Your task to perform on an android device: Go to Reddit.com Image 0: 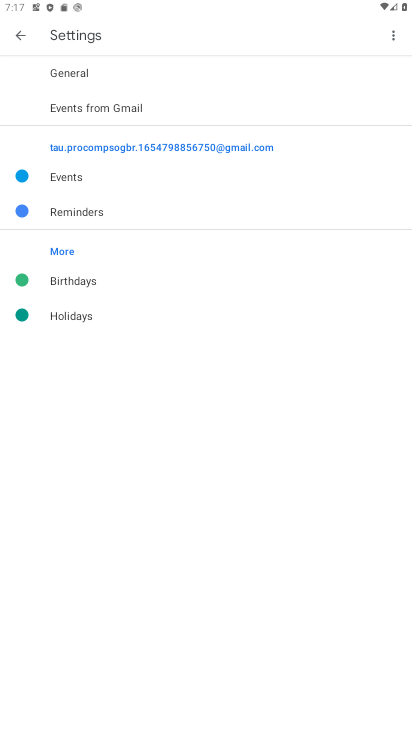
Step 0: press home button
Your task to perform on an android device: Go to Reddit.com Image 1: 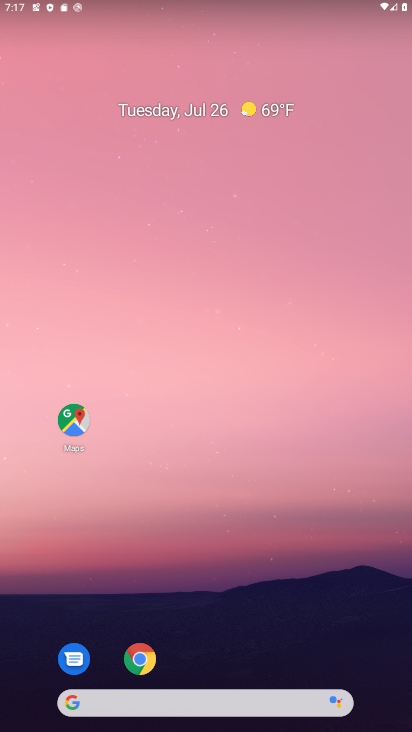
Step 1: click (151, 655)
Your task to perform on an android device: Go to Reddit.com Image 2: 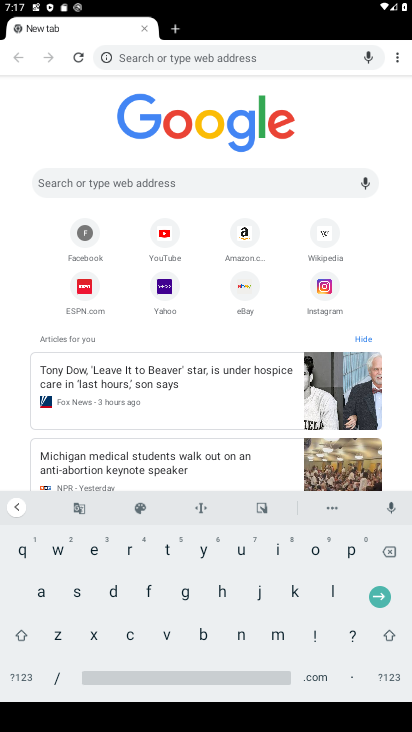
Step 2: click (144, 65)
Your task to perform on an android device: Go to Reddit.com Image 3: 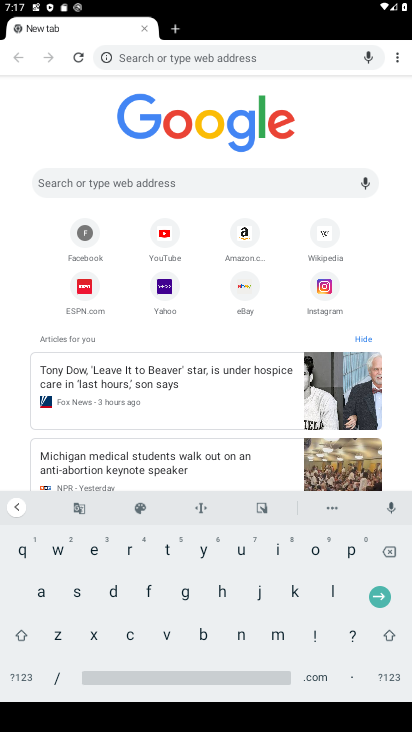
Step 3: click (129, 552)
Your task to perform on an android device: Go to Reddit.com Image 4: 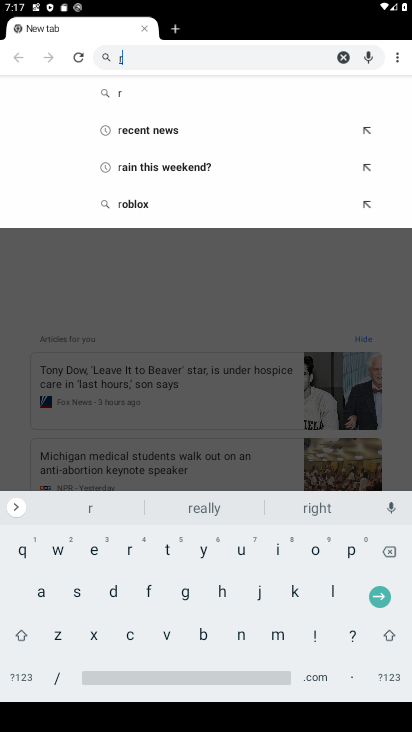
Step 4: click (93, 545)
Your task to perform on an android device: Go to Reddit.com Image 5: 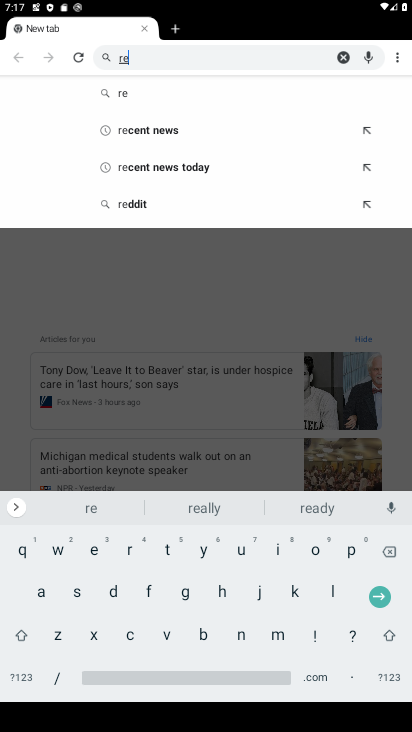
Step 5: click (140, 204)
Your task to perform on an android device: Go to Reddit.com Image 6: 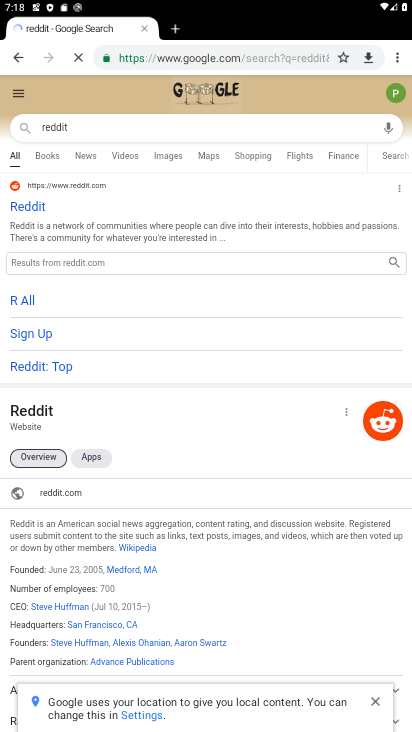
Step 6: click (34, 209)
Your task to perform on an android device: Go to Reddit.com Image 7: 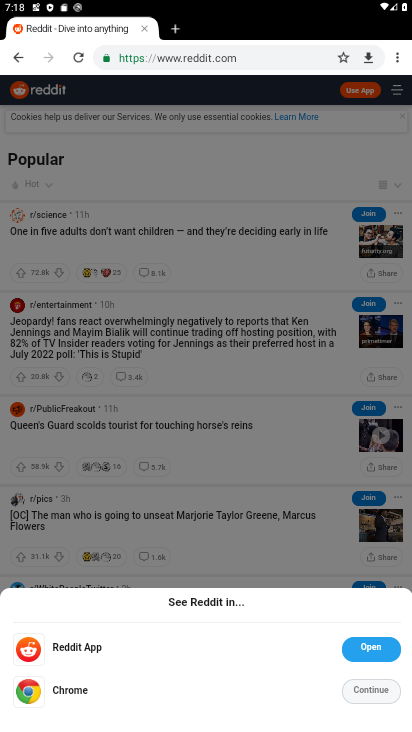
Step 7: click (377, 683)
Your task to perform on an android device: Go to Reddit.com Image 8: 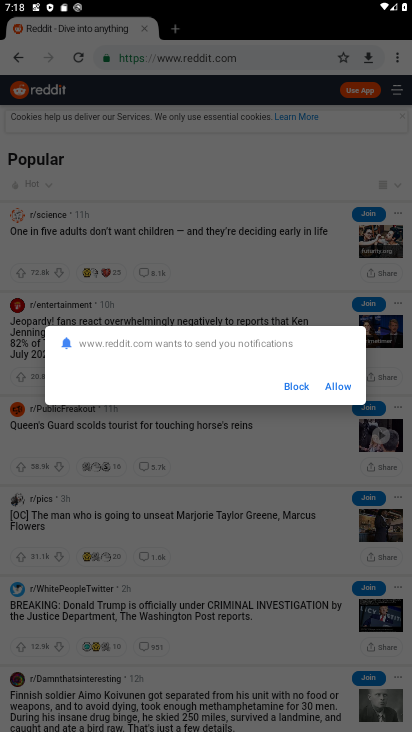
Step 8: click (289, 379)
Your task to perform on an android device: Go to Reddit.com Image 9: 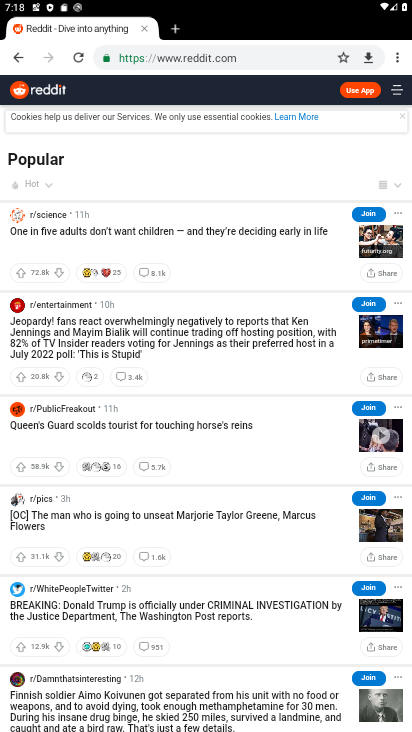
Step 9: task complete